Your task to perform on an android device: turn on improve location accuracy Image 0: 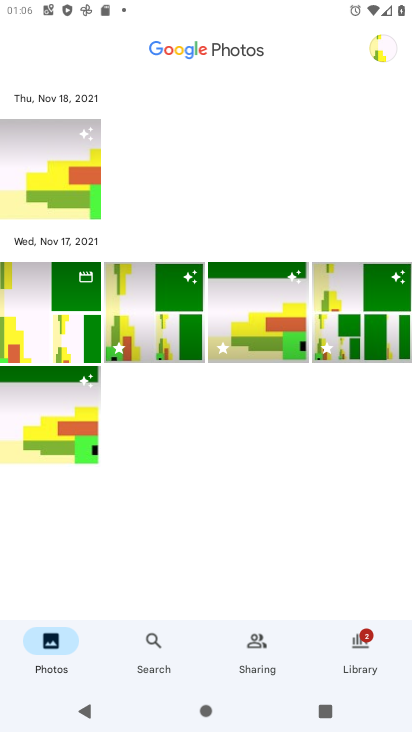
Step 0: press home button
Your task to perform on an android device: turn on improve location accuracy Image 1: 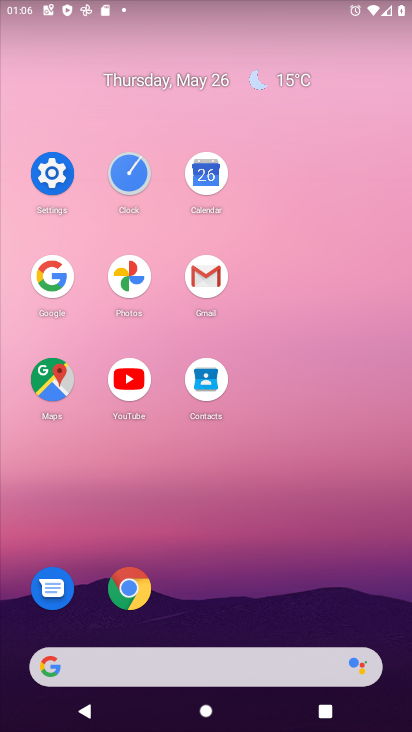
Step 1: click (67, 173)
Your task to perform on an android device: turn on improve location accuracy Image 2: 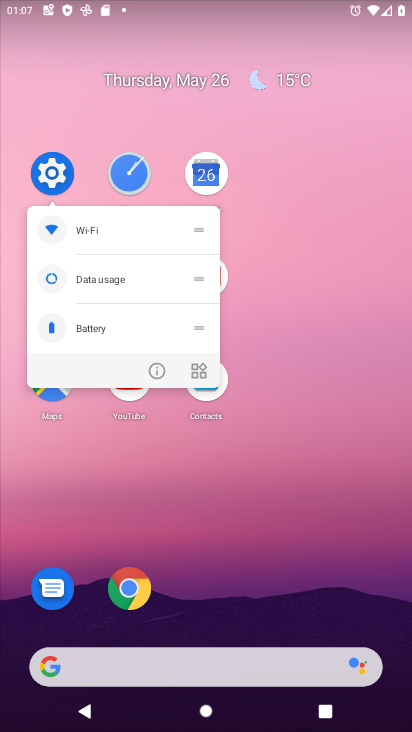
Step 2: click (48, 173)
Your task to perform on an android device: turn on improve location accuracy Image 3: 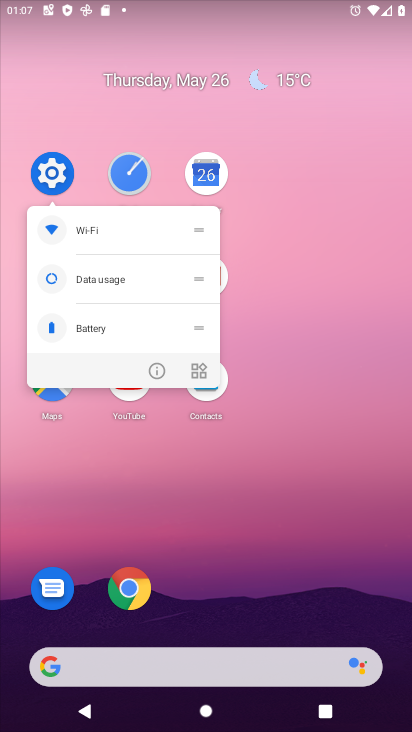
Step 3: click (51, 186)
Your task to perform on an android device: turn on improve location accuracy Image 4: 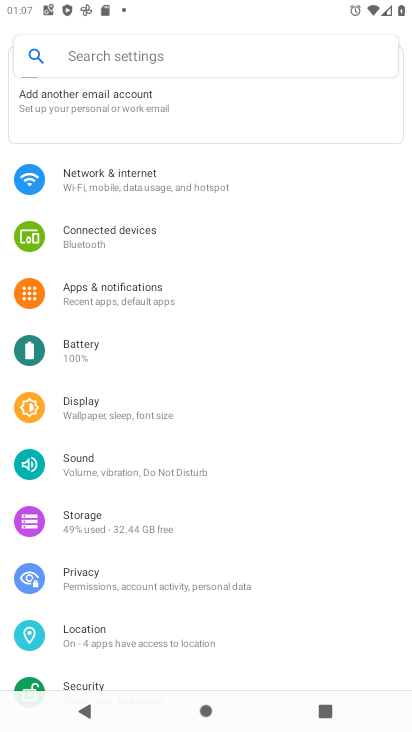
Step 4: click (160, 635)
Your task to perform on an android device: turn on improve location accuracy Image 5: 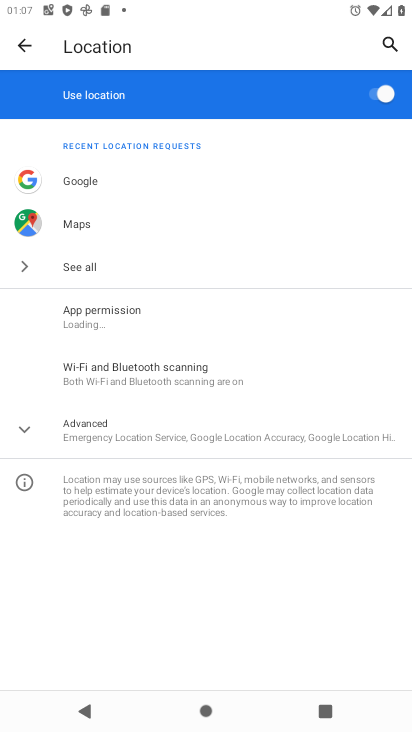
Step 5: click (174, 425)
Your task to perform on an android device: turn on improve location accuracy Image 6: 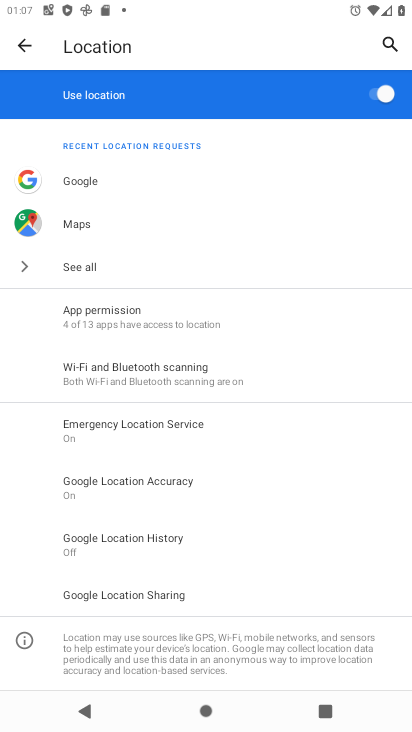
Step 6: click (192, 491)
Your task to perform on an android device: turn on improve location accuracy Image 7: 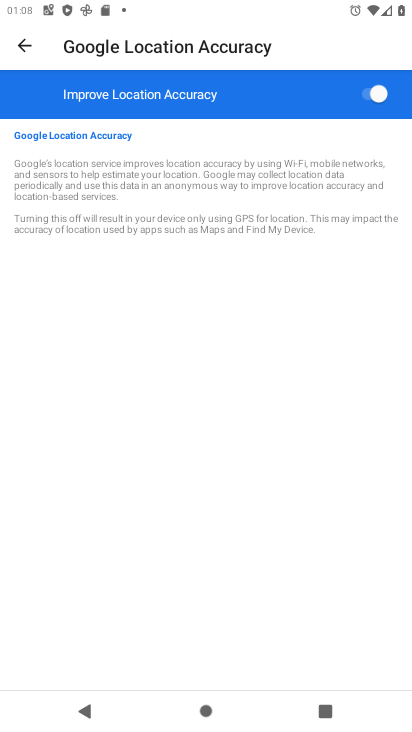
Step 7: task complete